Your task to perform on an android device: Go to accessibility settings Image 0: 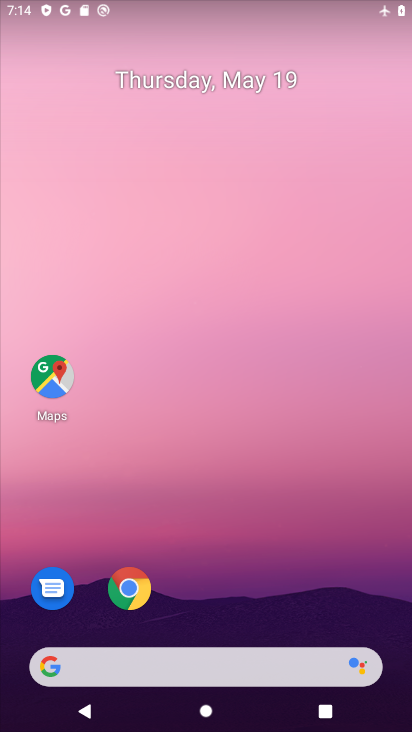
Step 0: drag from (320, 645) to (218, 59)
Your task to perform on an android device: Go to accessibility settings Image 1: 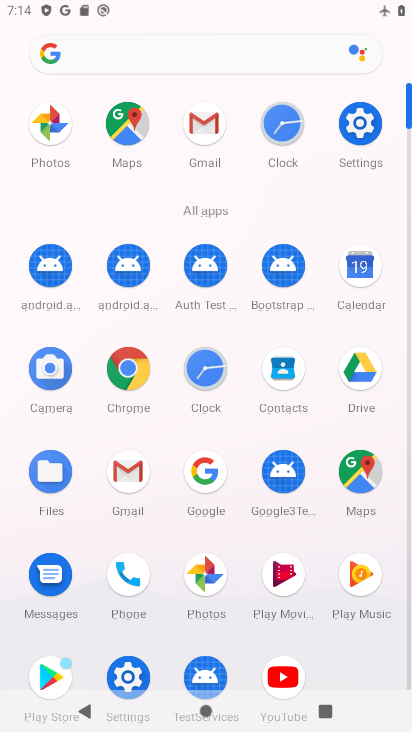
Step 1: click (117, 665)
Your task to perform on an android device: Go to accessibility settings Image 2: 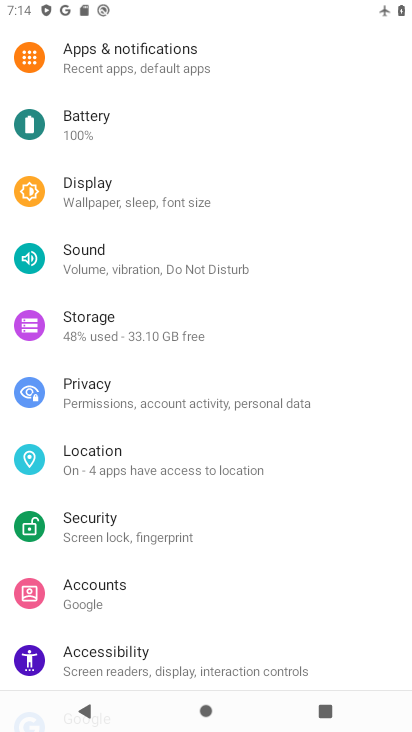
Step 2: click (155, 658)
Your task to perform on an android device: Go to accessibility settings Image 3: 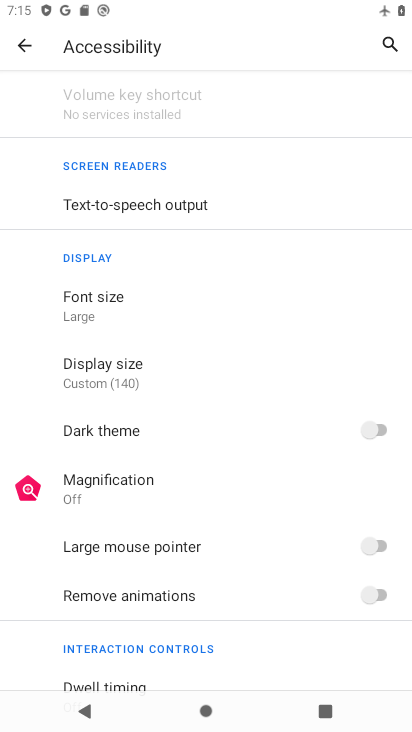
Step 3: task complete